Your task to perform on an android device: Go to CNN.com Image 0: 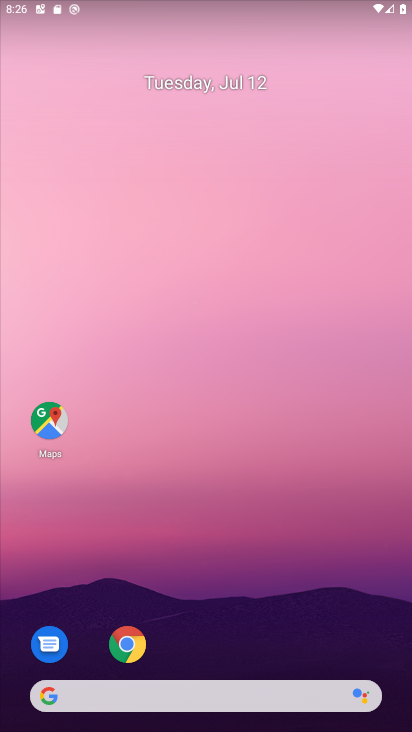
Step 0: drag from (225, 666) to (138, 140)
Your task to perform on an android device: Go to CNN.com Image 1: 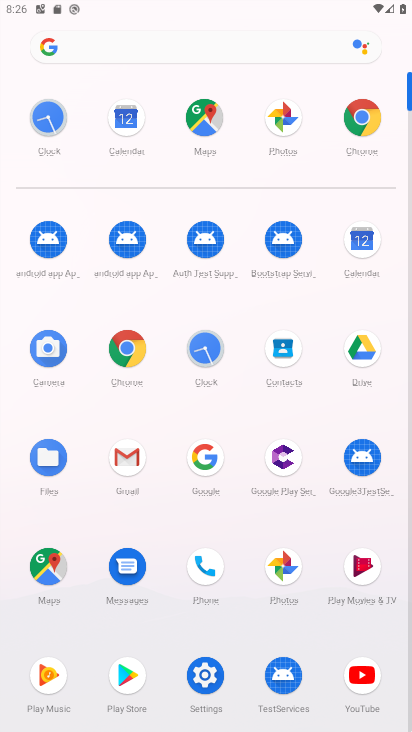
Step 1: click (360, 116)
Your task to perform on an android device: Go to CNN.com Image 2: 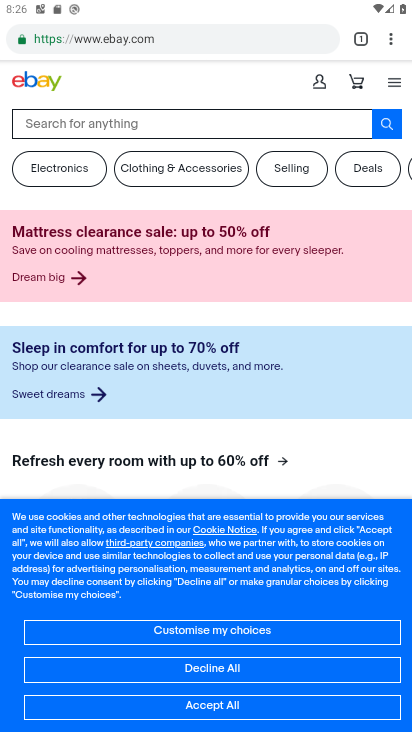
Step 2: click (144, 40)
Your task to perform on an android device: Go to CNN.com Image 3: 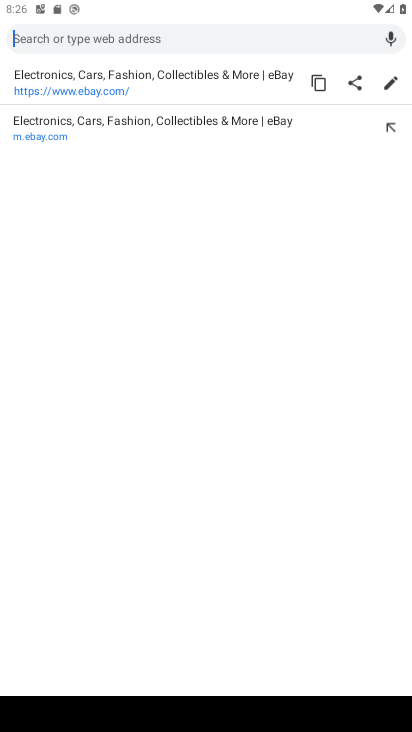
Step 3: type "cnn"
Your task to perform on an android device: Go to CNN.com Image 4: 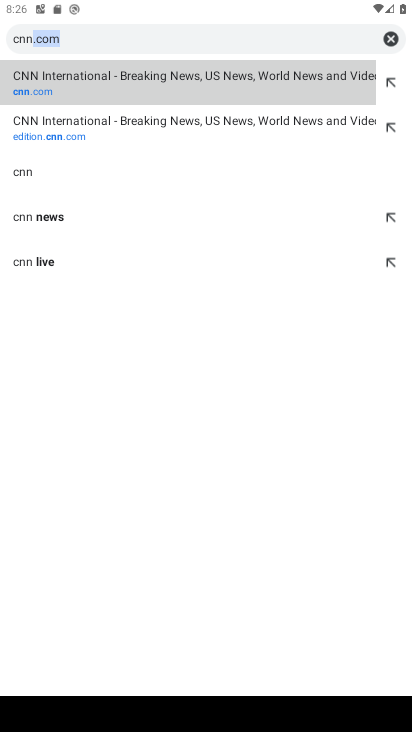
Step 4: click (36, 84)
Your task to perform on an android device: Go to CNN.com Image 5: 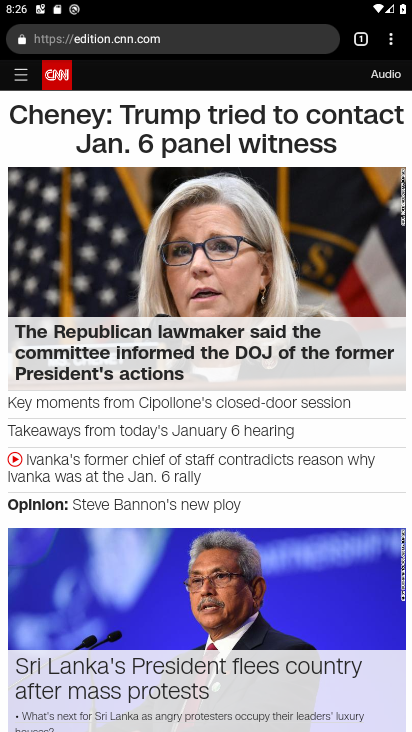
Step 5: task complete